Your task to perform on an android device: turn on notifications settings in the gmail app Image 0: 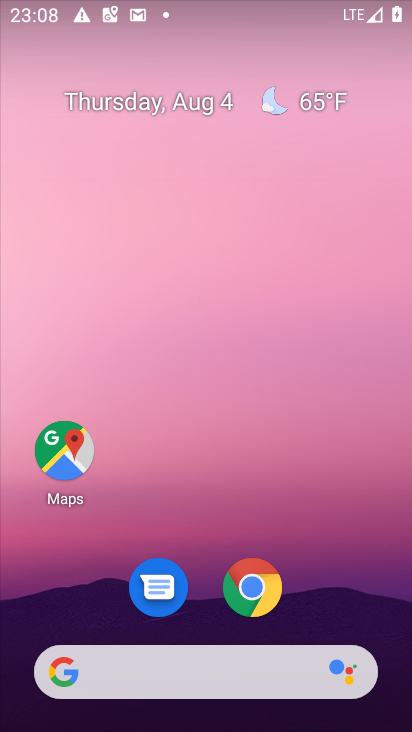
Step 0: drag from (238, 644) to (232, 320)
Your task to perform on an android device: turn on notifications settings in the gmail app Image 1: 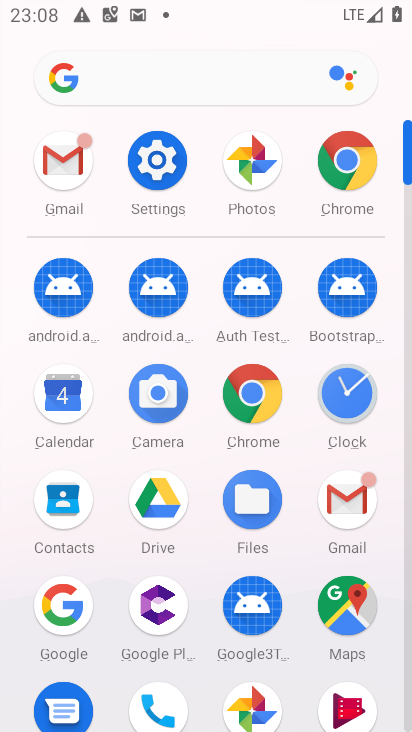
Step 1: click (346, 492)
Your task to perform on an android device: turn on notifications settings in the gmail app Image 2: 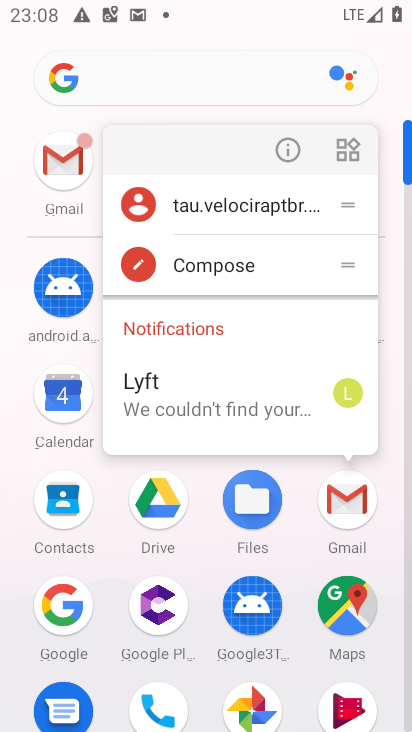
Step 2: click (334, 496)
Your task to perform on an android device: turn on notifications settings in the gmail app Image 3: 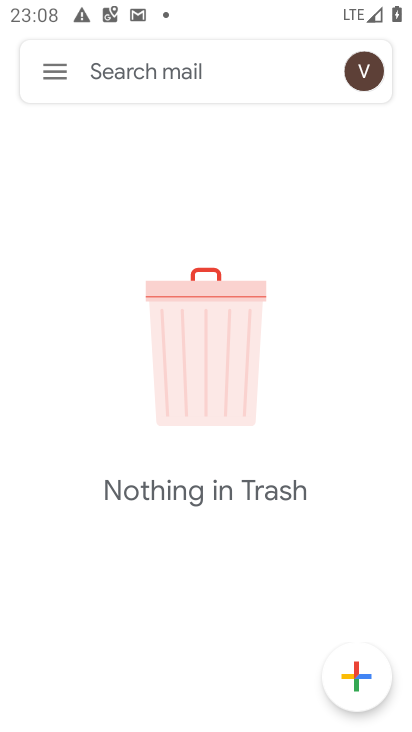
Step 3: click (48, 84)
Your task to perform on an android device: turn on notifications settings in the gmail app Image 4: 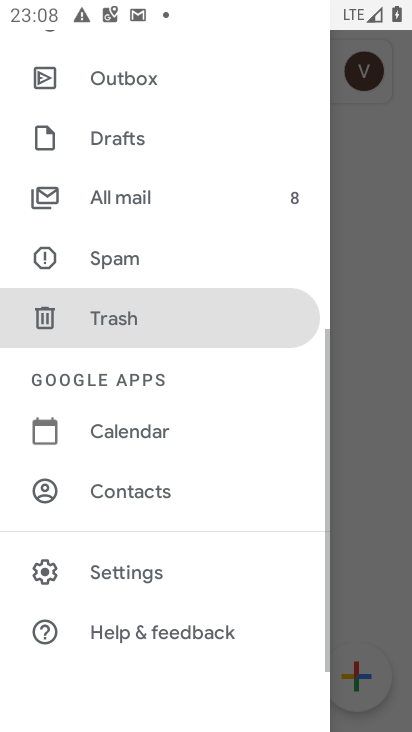
Step 4: click (157, 567)
Your task to perform on an android device: turn on notifications settings in the gmail app Image 5: 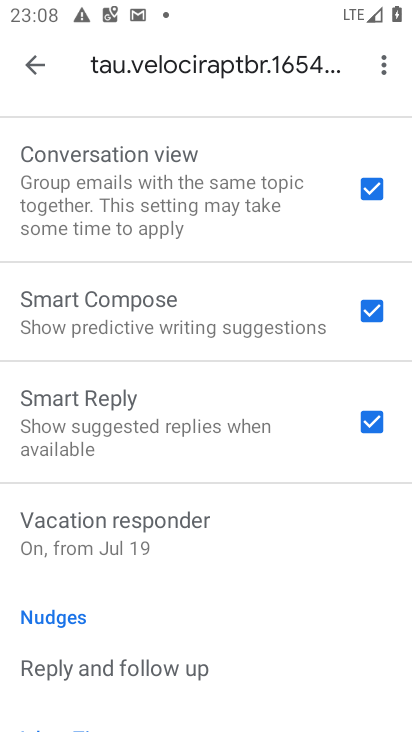
Step 5: drag from (185, 619) to (237, 220)
Your task to perform on an android device: turn on notifications settings in the gmail app Image 6: 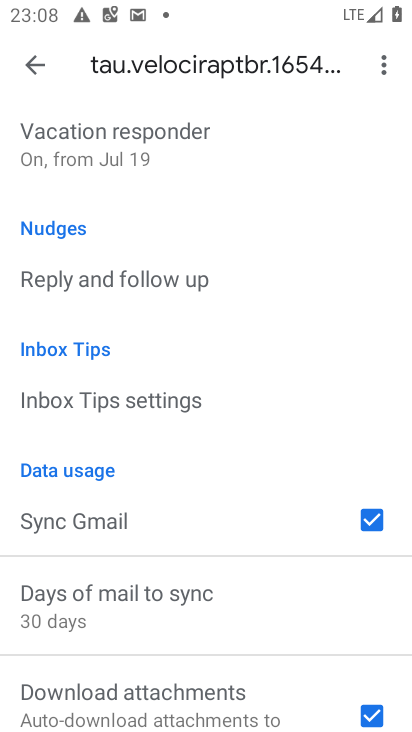
Step 6: drag from (157, 615) to (240, 154)
Your task to perform on an android device: turn on notifications settings in the gmail app Image 7: 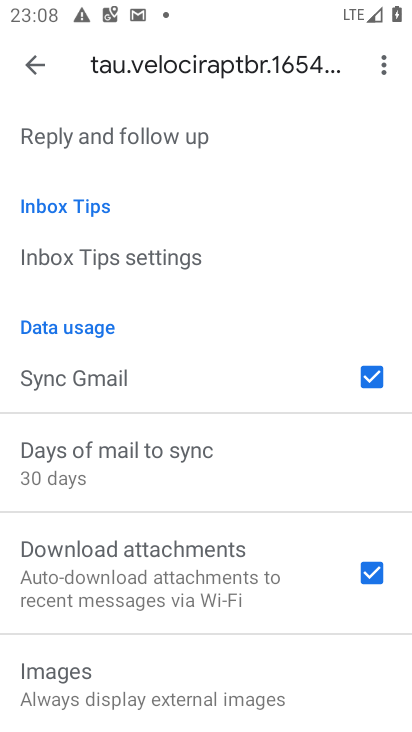
Step 7: drag from (166, 207) to (176, 599)
Your task to perform on an android device: turn on notifications settings in the gmail app Image 8: 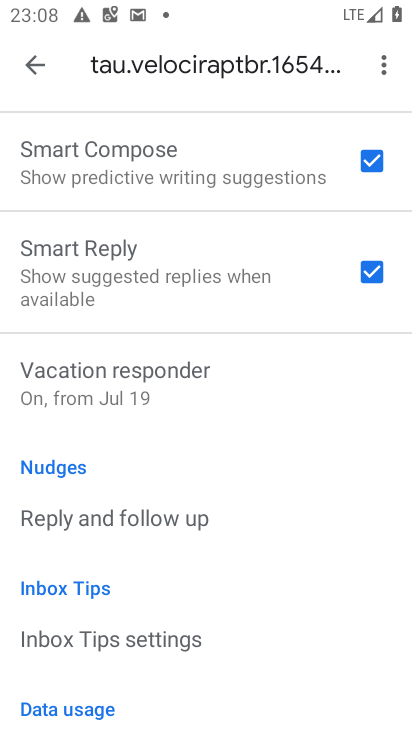
Step 8: drag from (143, 239) to (151, 590)
Your task to perform on an android device: turn on notifications settings in the gmail app Image 9: 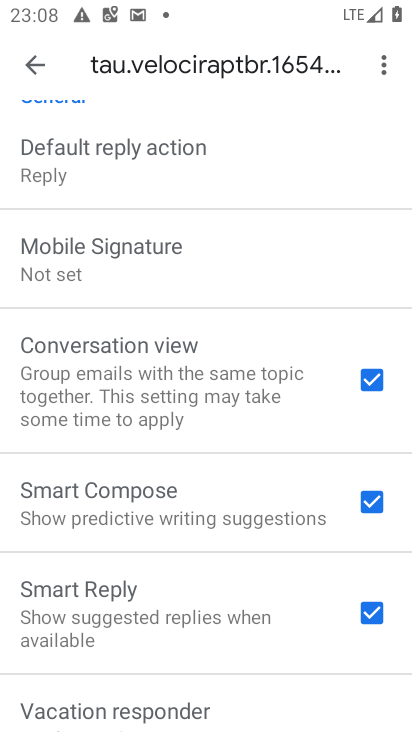
Step 9: drag from (194, 222) to (188, 604)
Your task to perform on an android device: turn on notifications settings in the gmail app Image 10: 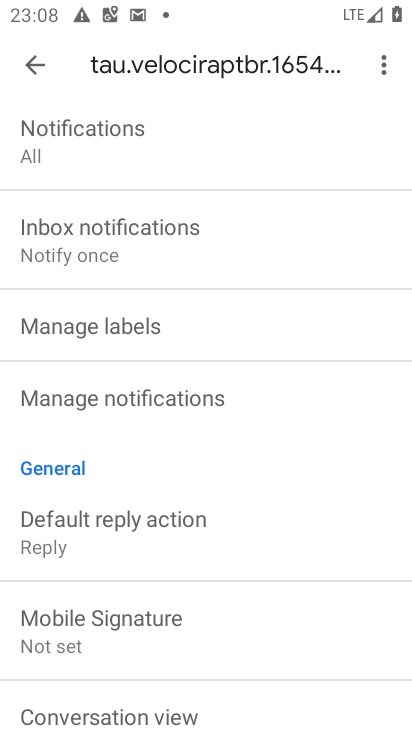
Step 10: drag from (124, 246) to (131, 431)
Your task to perform on an android device: turn on notifications settings in the gmail app Image 11: 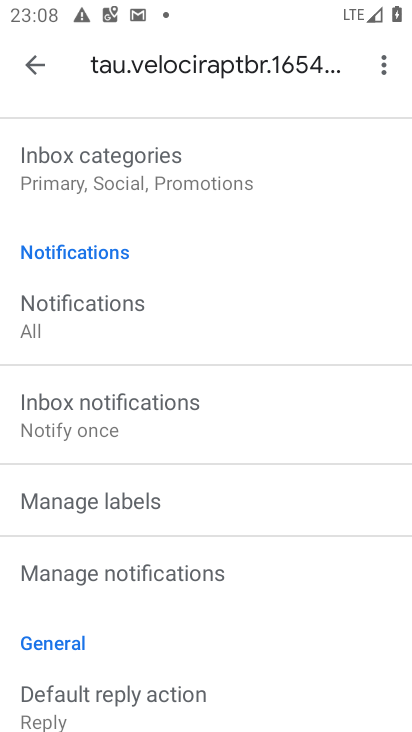
Step 11: click (86, 310)
Your task to perform on an android device: turn on notifications settings in the gmail app Image 12: 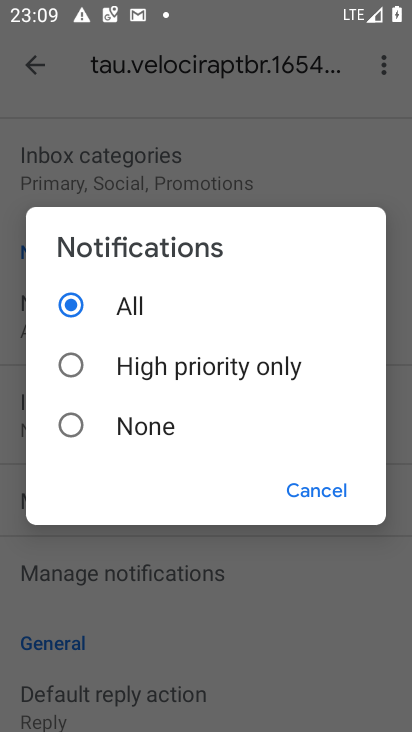
Step 12: task complete